Your task to perform on an android device: open app "Adobe Express: Graphic Design" Image 0: 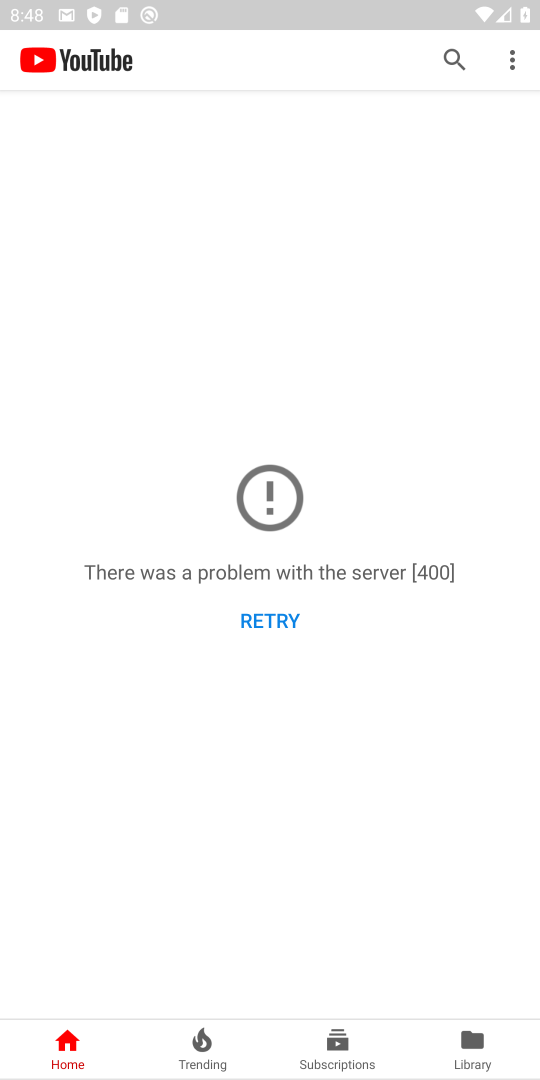
Step 0: press home button
Your task to perform on an android device: open app "Adobe Express: Graphic Design" Image 1: 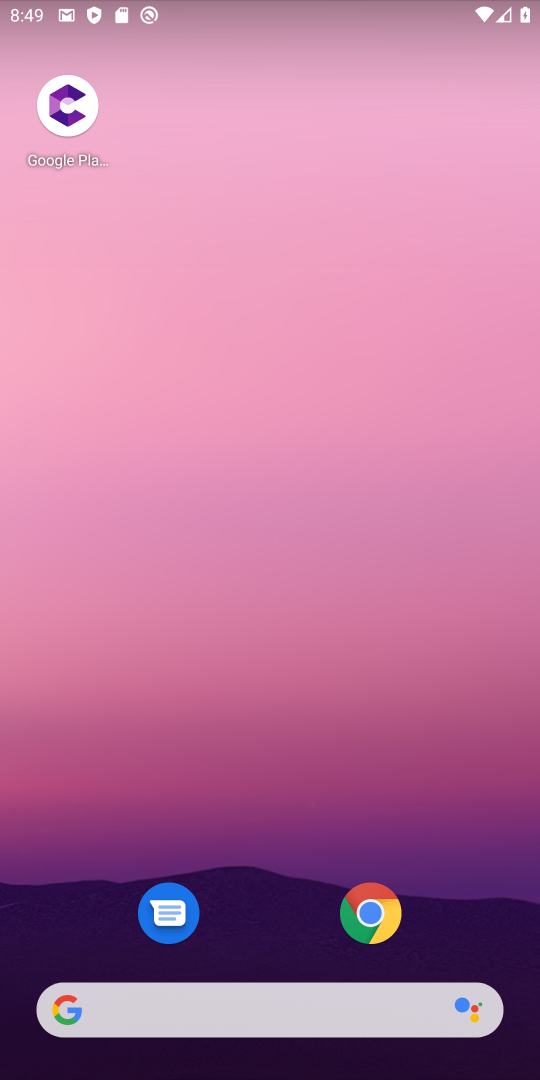
Step 1: drag from (329, 1004) to (305, 203)
Your task to perform on an android device: open app "Adobe Express: Graphic Design" Image 2: 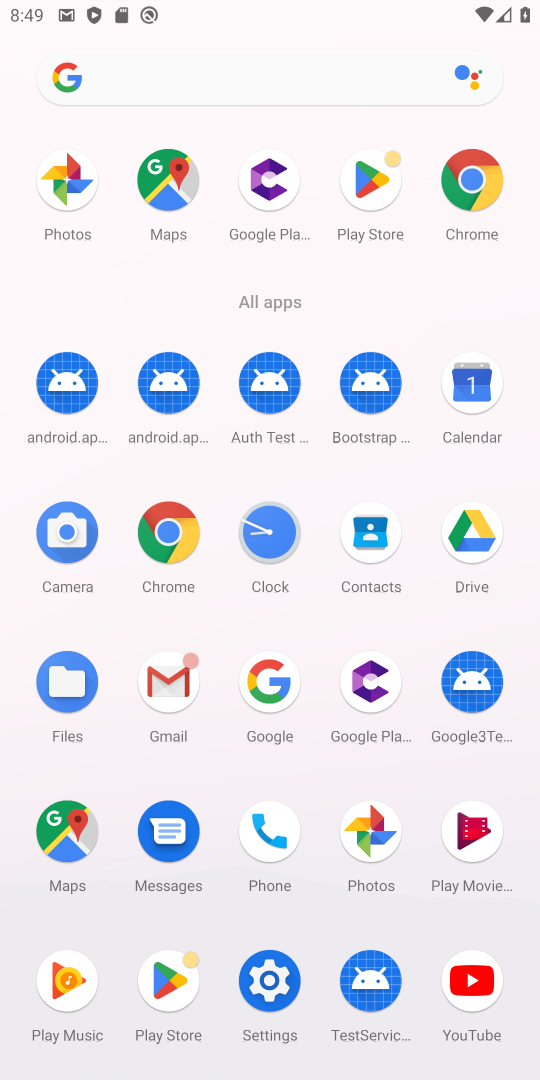
Step 2: click (388, 196)
Your task to perform on an android device: open app "Adobe Express: Graphic Design" Image 3: 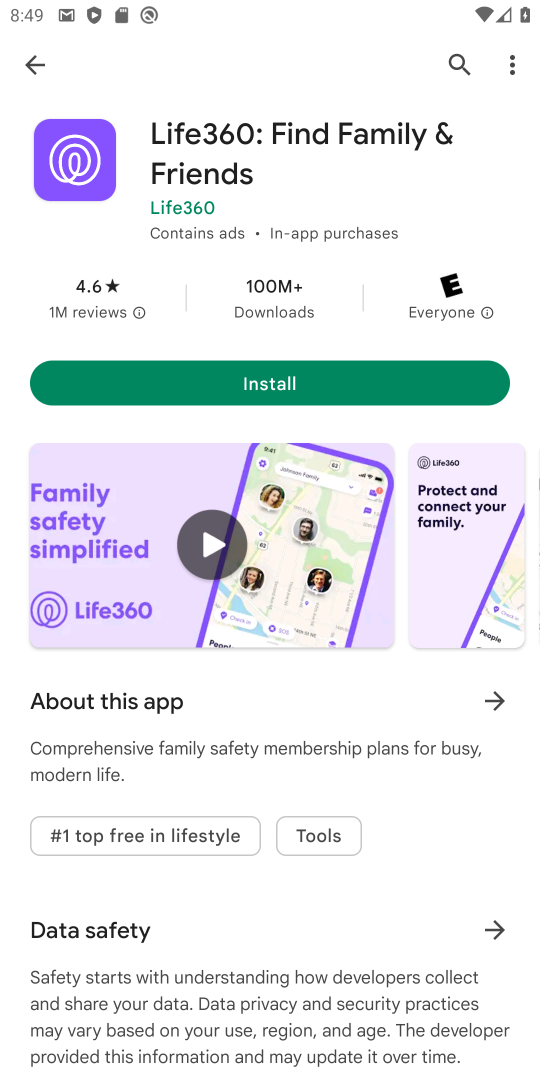
Step 3: click (466, 63)
Your task to perform on an android device: open app "Adobe Express: Graphic Design" Image 4: 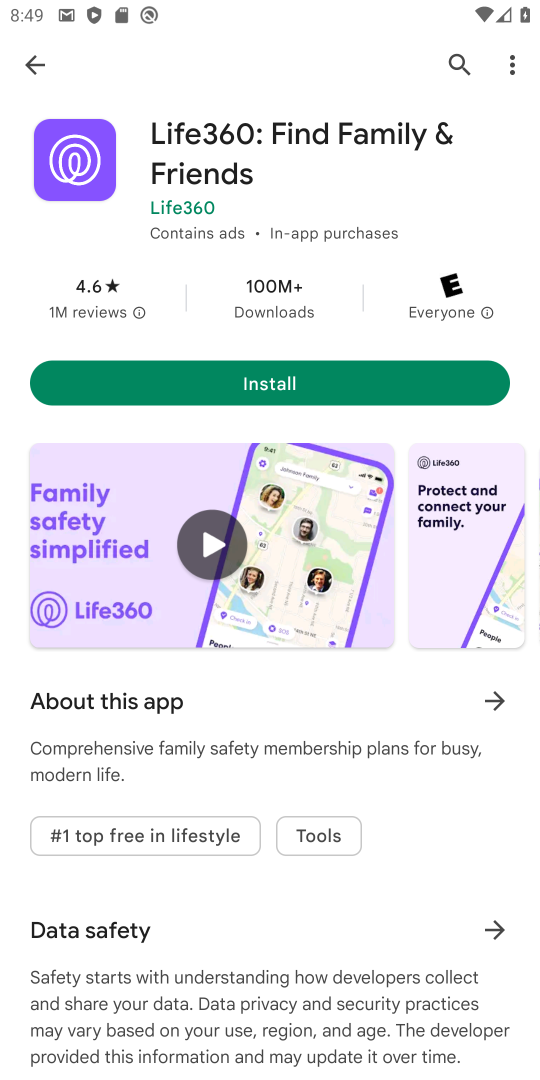
Step 4: click (460, 56)
Your task to perform on an android device: open app "Adobe Express: Graphic Design" Image 5: 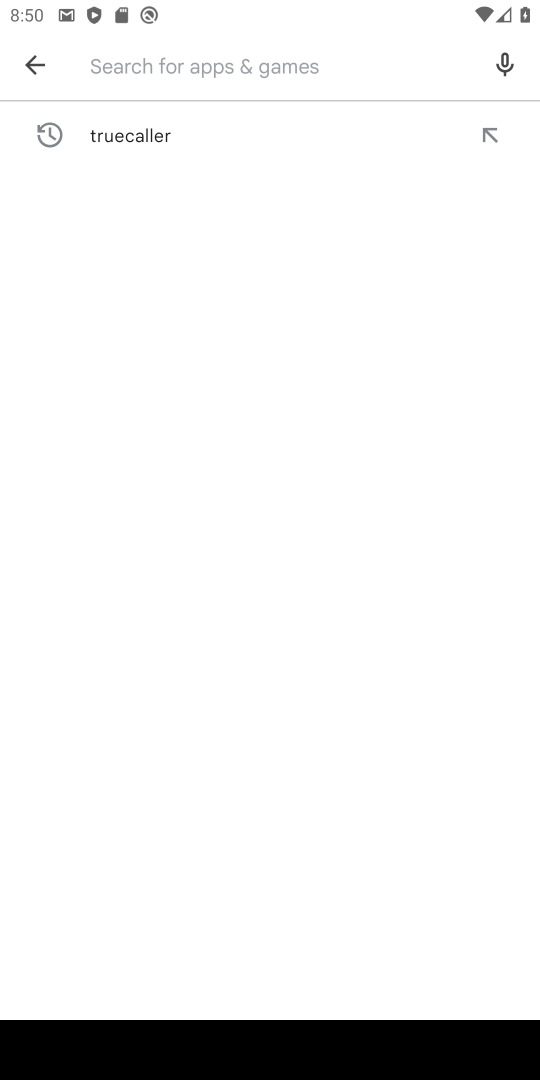
Step 5: type "Adobe Express: Graphic Design"
Your task to perform on an android device: open app "Adobe Express: Graphic Design" Image 6: 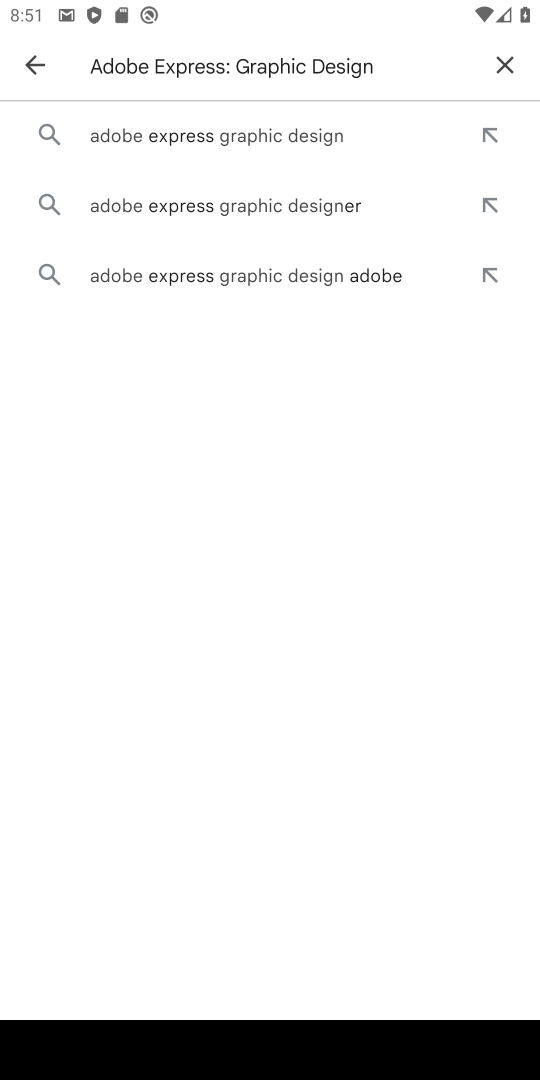
Step 6: click (143, 123)
Your task to perform on an android device: open app "Adobe Express: Graphic Design" Image 7: 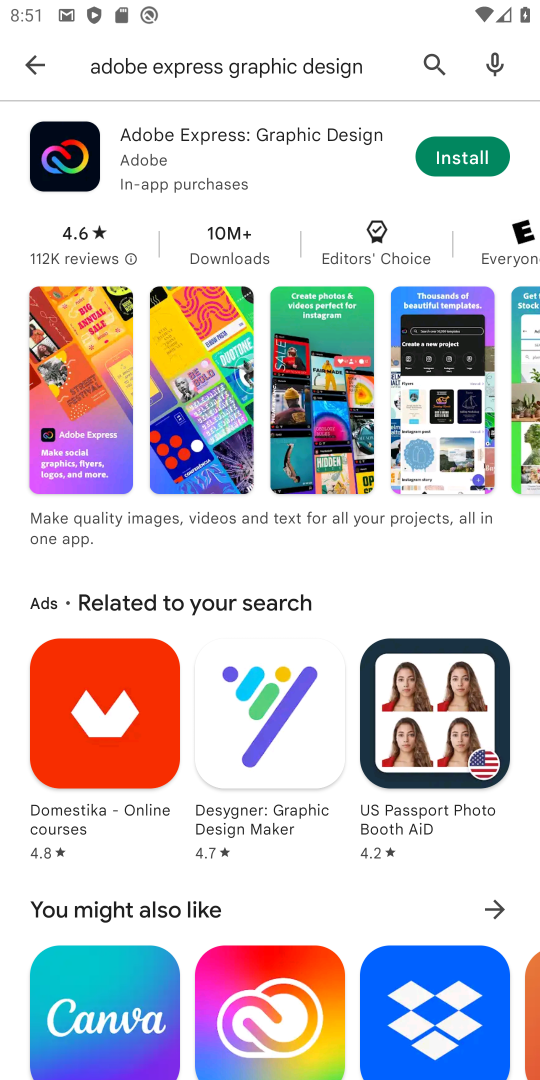
Step 7: task complete